Your task to perform on an android device: change the clock display to analog Image 0: 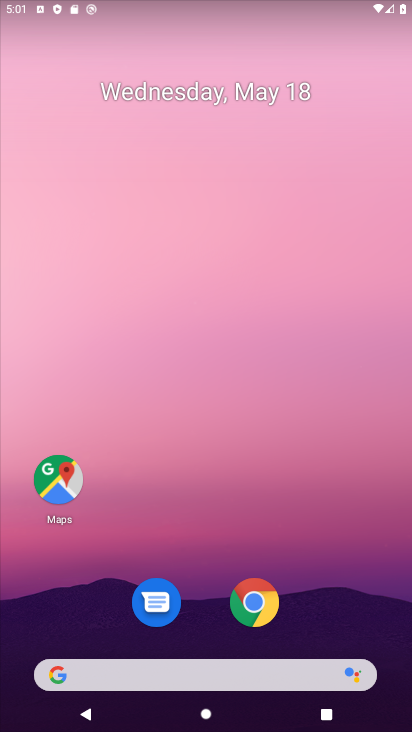
Step 0: press home button
Your task to perform on an android device: change the clock display to analog Image 1: 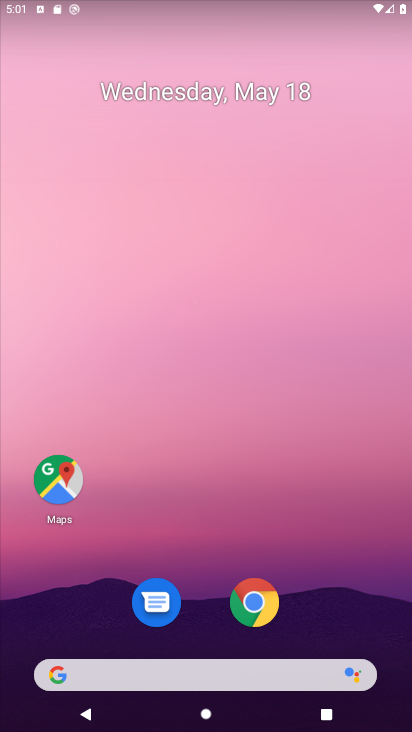
Step 1: drag from (317, 660) to (278, 23)
Your task to perform on an android device: change the clock display to analog Image 2: 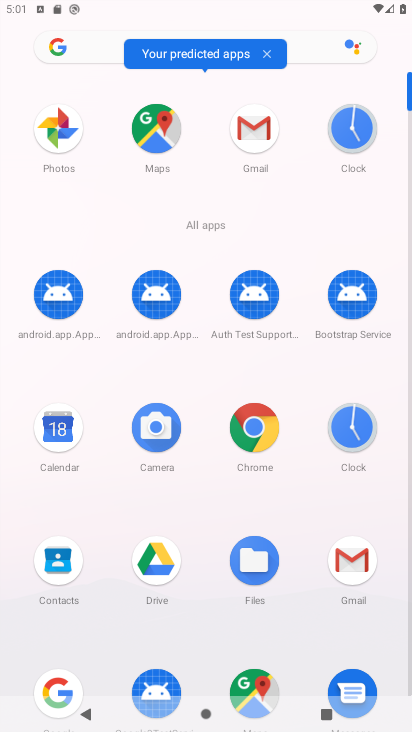
Step 2: click (351, 438)
Your task to perform on an android device: change the clock display to analog Image 3: 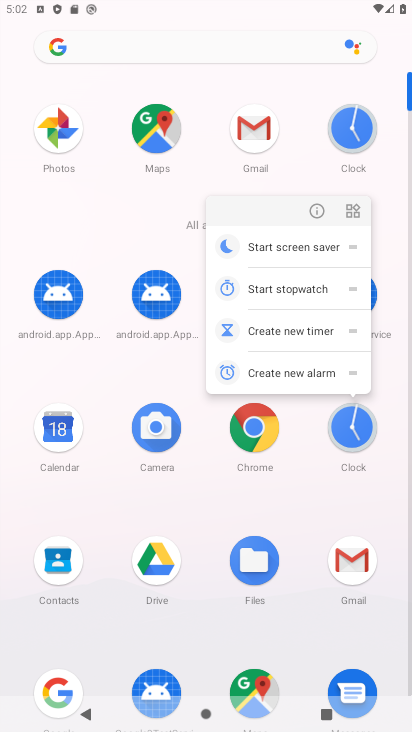
Step 3: click (351, 438)
Your task to perform on an android device: change the clock display to analog Image 4: 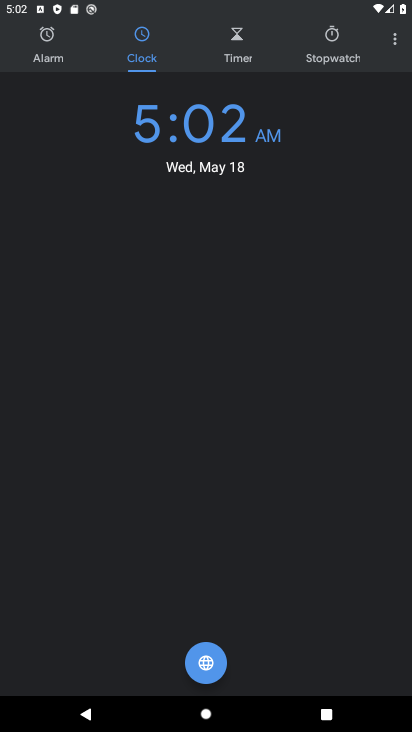
Step 4: click (391, 39)
Your task to perform on an android device: change the clock display to analog Image 5: 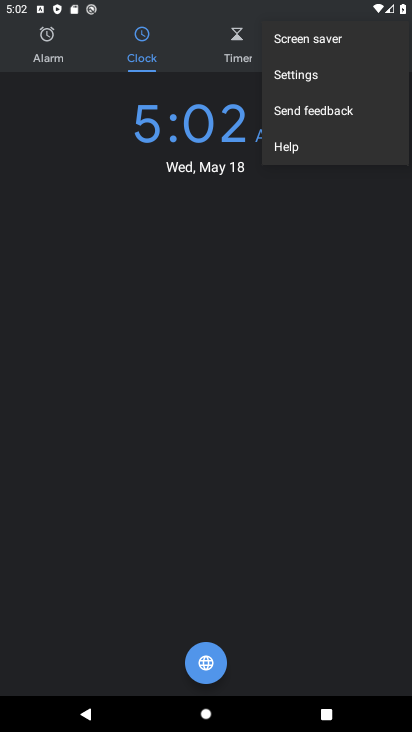
Step 5: click (321, 79)
Your task to perform on an android device: change the clock display to analog Image 6: 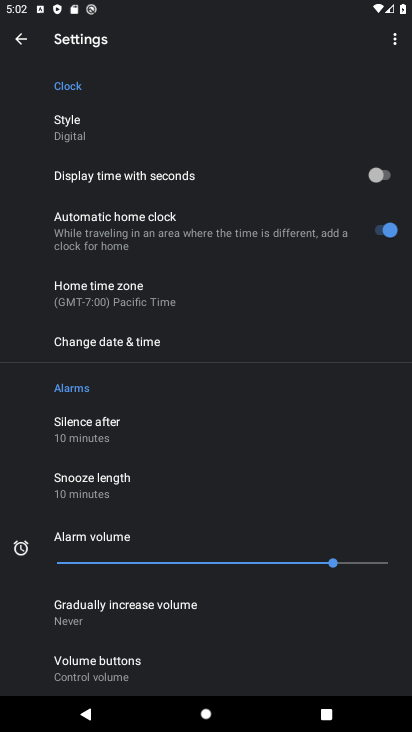
Step 6: click (111, 134)
Your task to perform on an android device: change the clock display to analog Image 7: 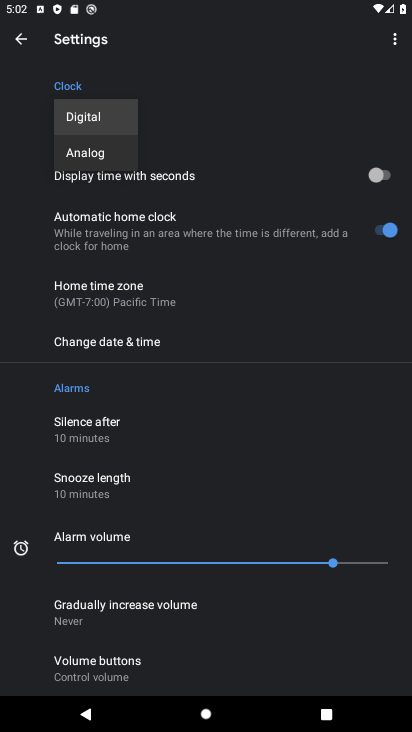
Step 7: click (101, 156)
Your task to perform on an android device: change the clock display to analog Image 8: 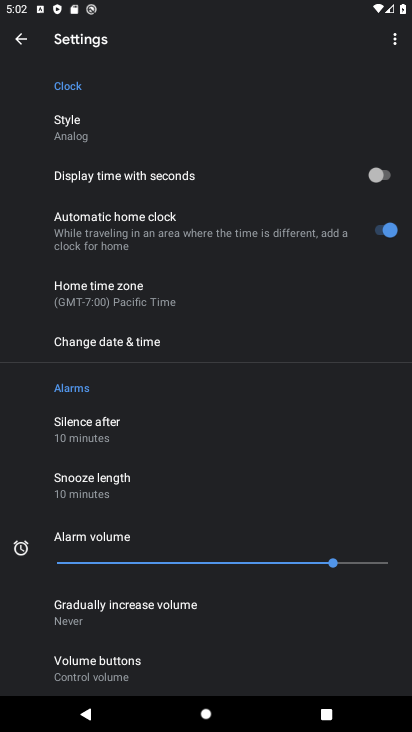
Step 8: task complete